Your task to perform on an android device: turn on notifications settings in the gmail app Image 0: 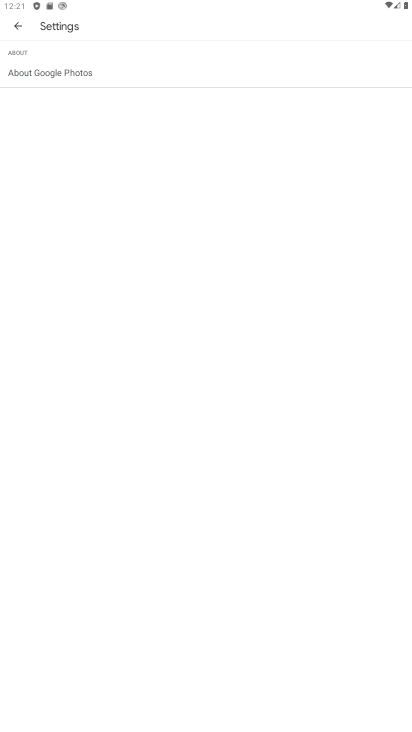
Step 0: press home button
Your task to perform on an android device: turn on notifications settings in the gmail app Image 1: 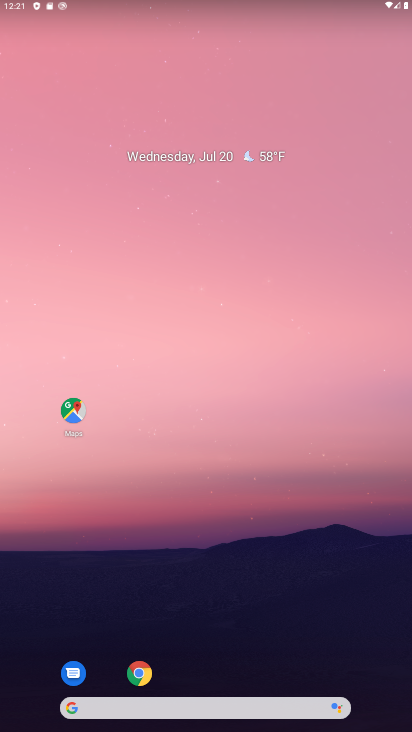
Step 1: drag from (233, 661) to (255, 33)
Your task to perform on an android device: turn on notifications settings in the gmail app Image 2: 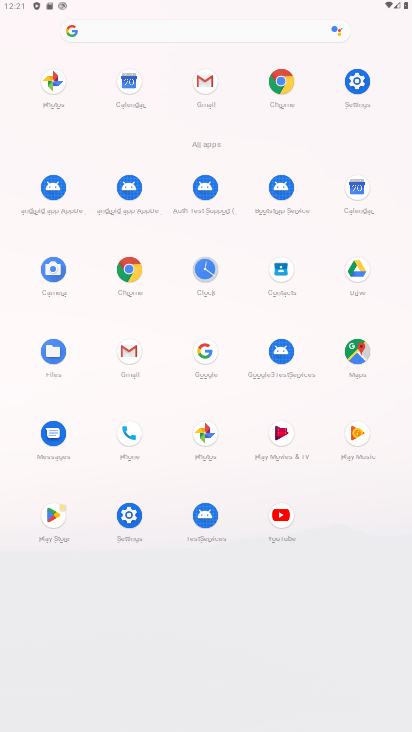
Step 2: click (133, 363)
Your task to perform on an android device: turn on notifications settings in the gmail app Image 3: 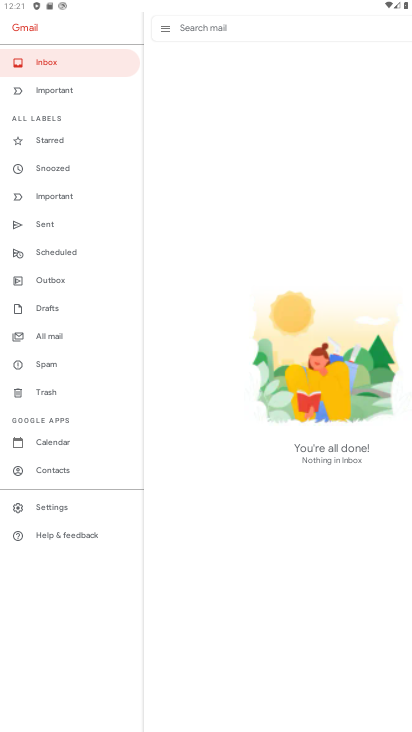
Step 3: click (53, 512)
Your task to perform on an android device: turn on notifications settings in the gmail app Image 4: 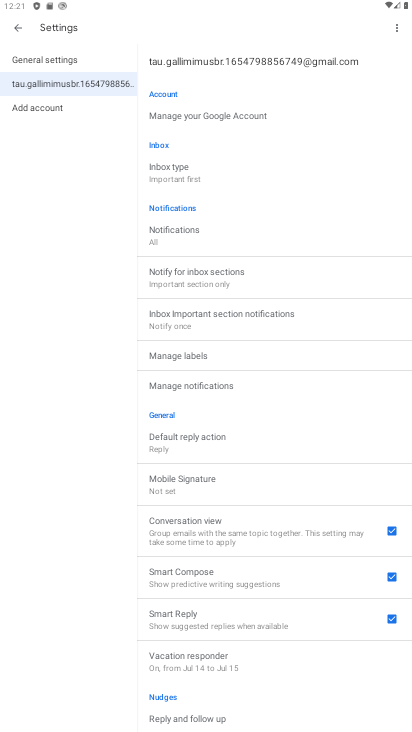
Step 4: click (90, 60)
Your task to perform on an android device: turn on notifications settings in the gmail app Image 5: 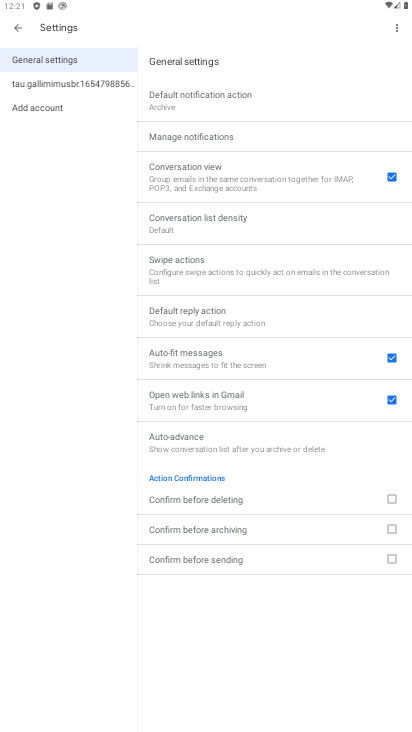
Step 5: click (201, 135)
Your task to perform on an android device: turn on notifications settings in the gmail app Image 6: 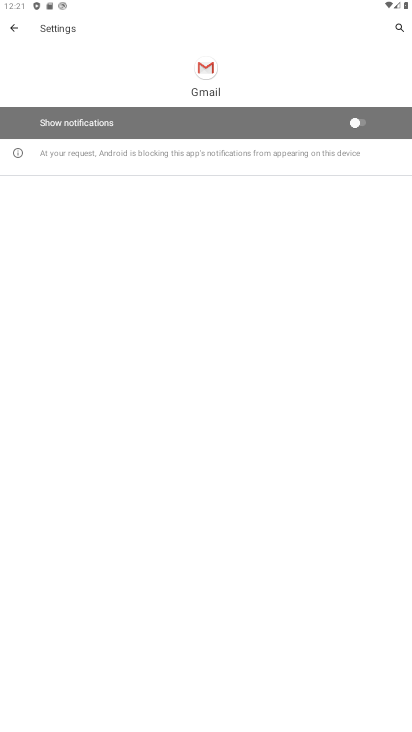
Step 6: click (371, 113)
Your task to perform on an android device: turn on notifications settings in the gmail app Image 7: 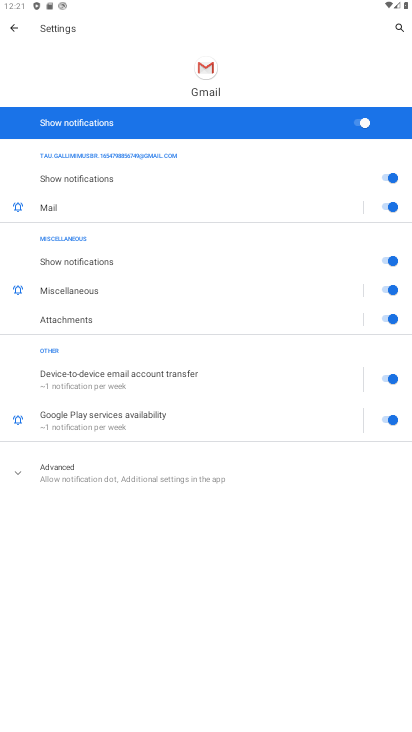
Step 7: task complete